Your task to perform on an android device: turn off smart reply in the gmail app Image 0: 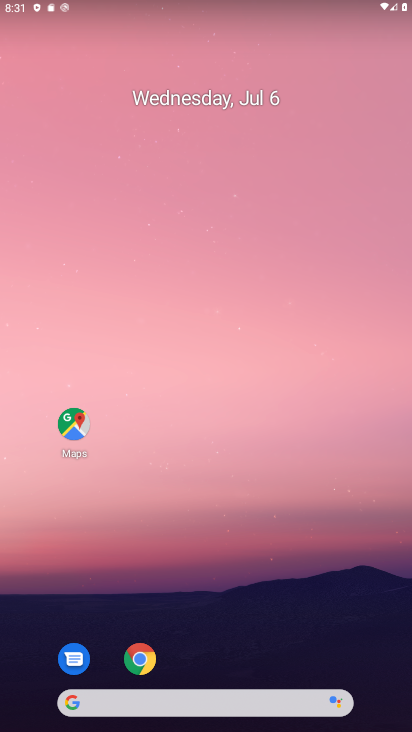
Step 0: drag from (368, 611) to (358, 66)
Your task to perform on an android device: turn off smart reply in the gmail app Image 1: 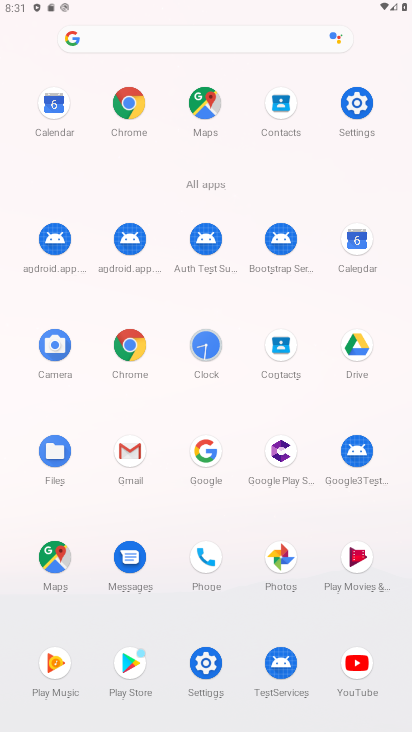
Step 1: click (129, 460)
Your task to perform on an android device: turn off smart reply in the gmail app Image 2: 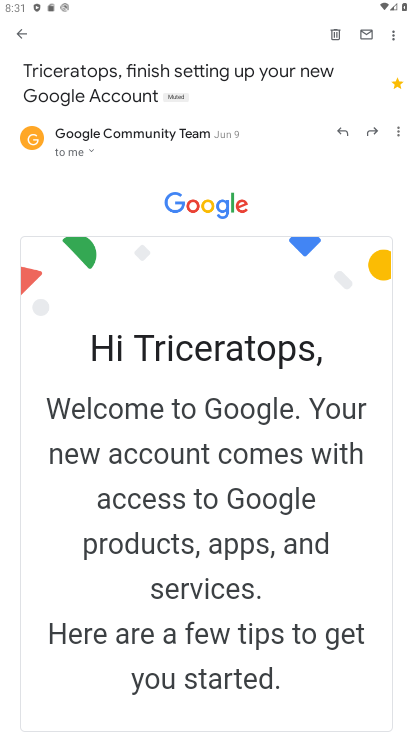
Step 2: press back button
Your task to perform on an android device: turn off smart reply in the gmail app Image 3: 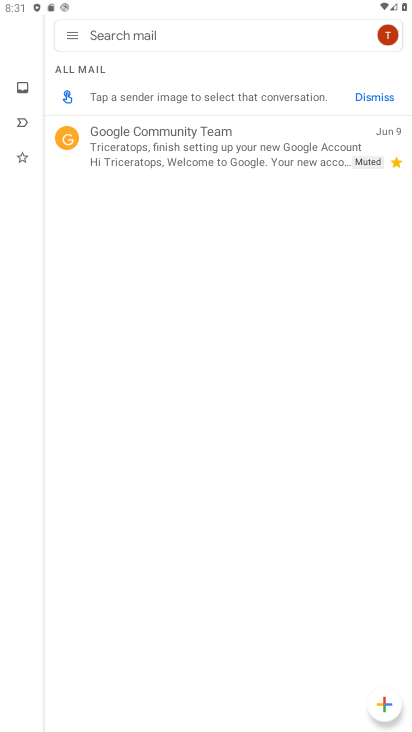
Step 3: click (70, 33)
Your task to perform on an android device: turn off smart reply in the gmail app Image 4: 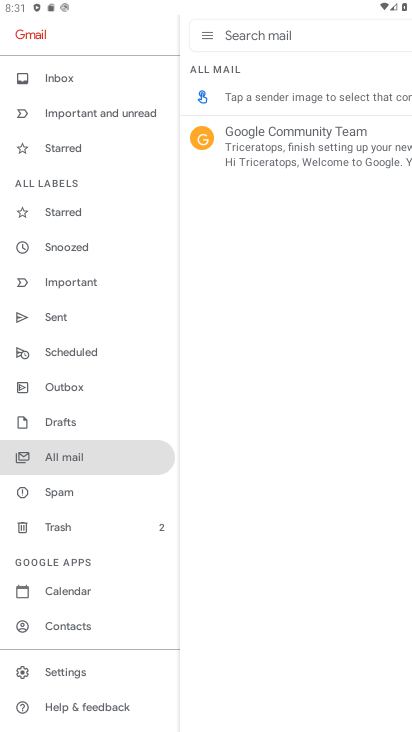
Step 4: drag from (114, 559) to (138, 293)
Your task to perform on an android device: turn off smart reply in the gmail app Image 5: 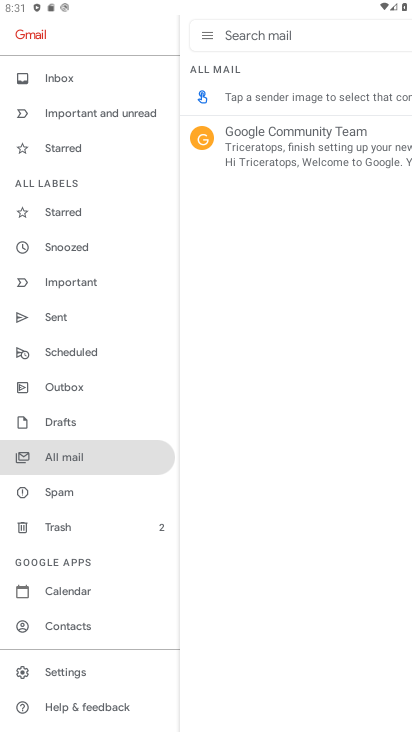
Step 5: click (93, 669)
Your task to perform on an android device: turn off smart reply in the gmail app Image 6: 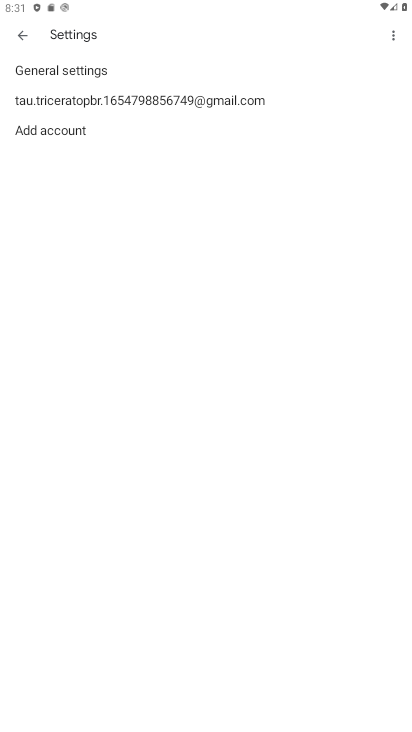
Step 6: click (178, 98)
Your task to perform on an android device: turn off smart reply in the gmail app Image 7: 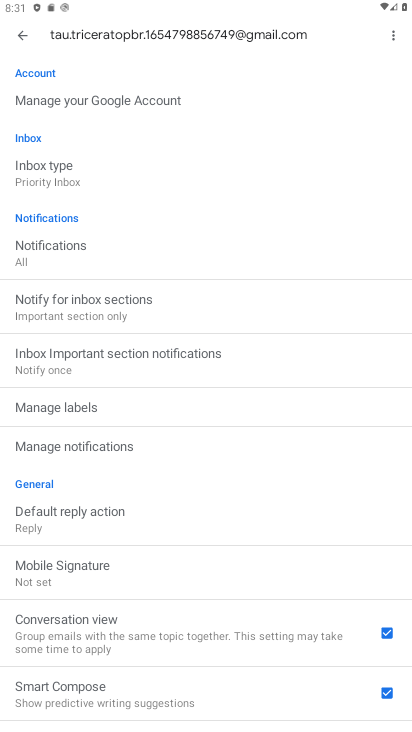
Step 7: drag from (312, 471) to (314, 247)
Your task to perform on an android device: turn off smart reply in the gmail app Image 8: 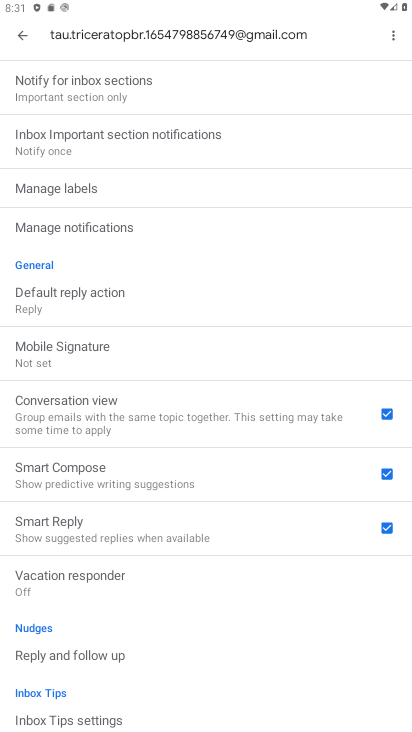
Step 8: drag from (294, 447) to (302, 292)
Your task to perform on an android device: turn off smart reply in the gmail app Image 9: 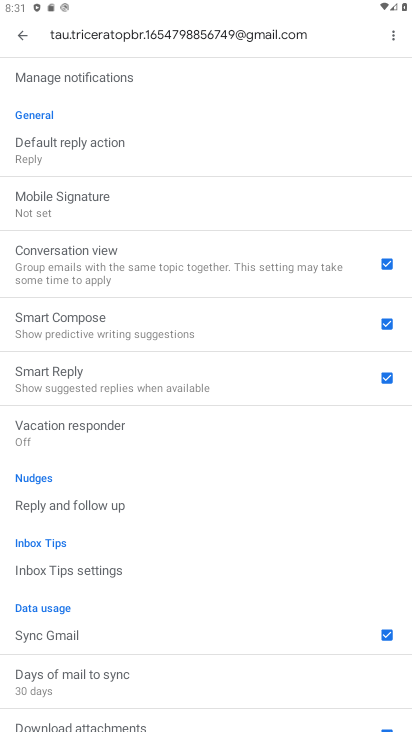
Step 9: drag from (287, 548) to (276, 321)
Your task to perform on an android device: turn off smart reply in the gmail app Image 10: 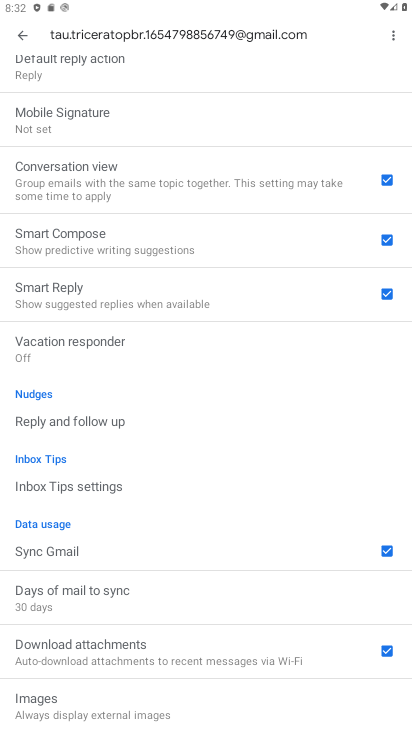
Step 10: click (197, 295)
Your task to perform on an android device: turn off smart reply in the gmail app Image 11: 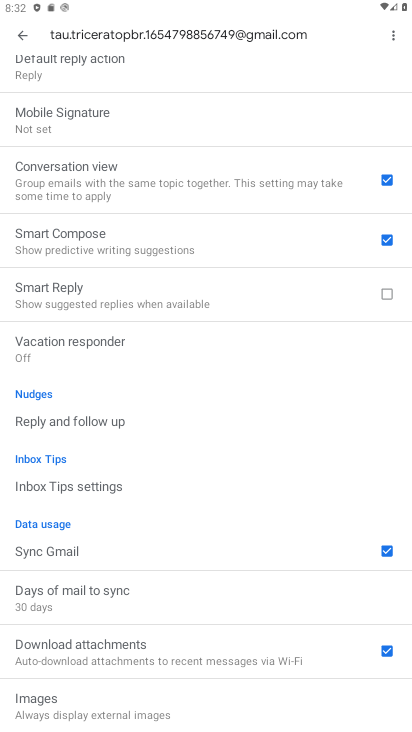
Step 11: task complete